Your task to perform on an android device: turn on javascript in the chrome app Image 0: 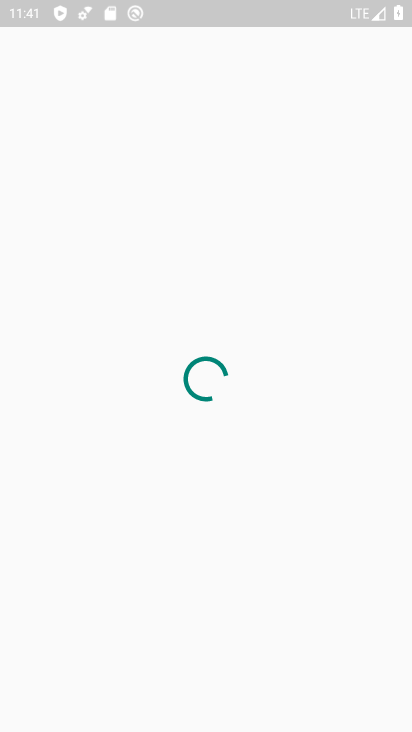
Step 0: press home button
Your task to perform on an android device: turn on javascript in the chrome app Image 1: 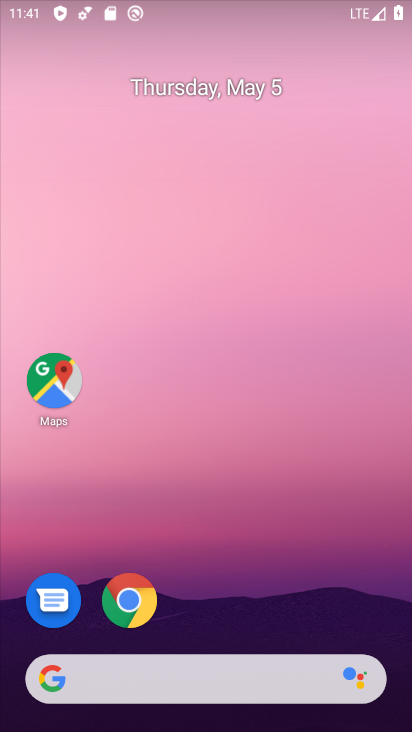
Step 1: drag from (371, 636) to (329, 66)
Your task to perform on an android device: turn on javascript in the chrome app Image 2: 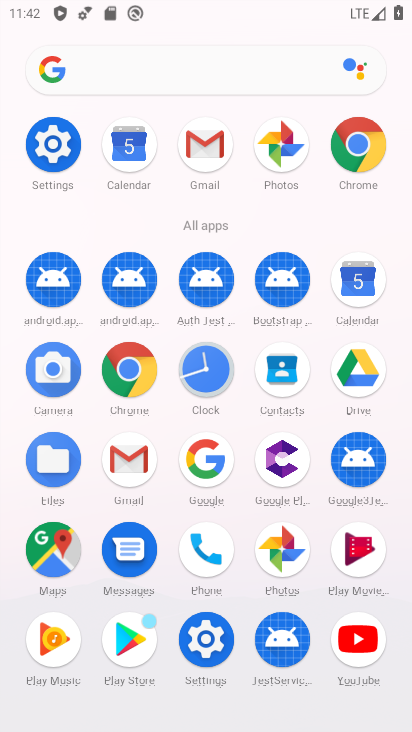
Step 2: click (348, 170)
Your task to perform on an android device: turn on javascript in the chrome app Image 3: 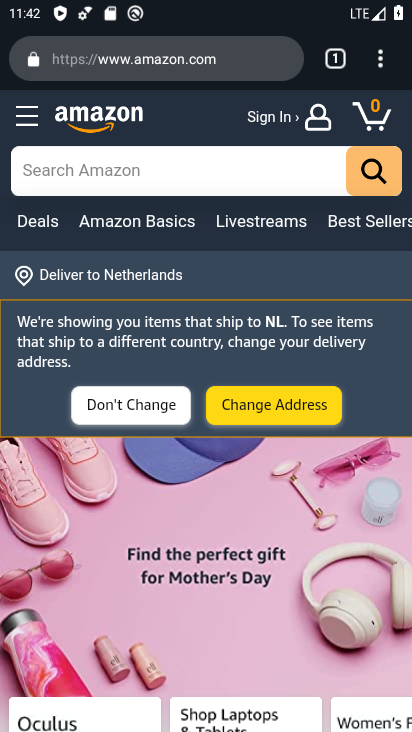
Step 3: press back button
Your task to perform on an android device: turn on javascript in the chrome app Image 4: 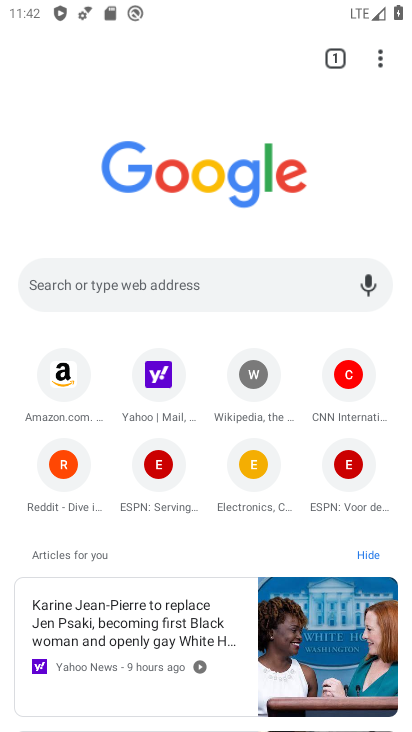
Step 4: click (382, 52)
Your task to perform on an android device: turn on javascript in the chrome app Image 5: 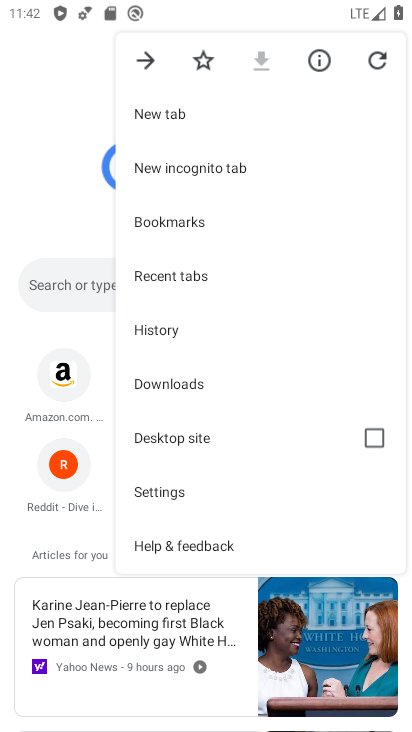
Step 5: click (220, 503)
Your task to perform on an android device: turn on javascript in the chrome app Image 6: 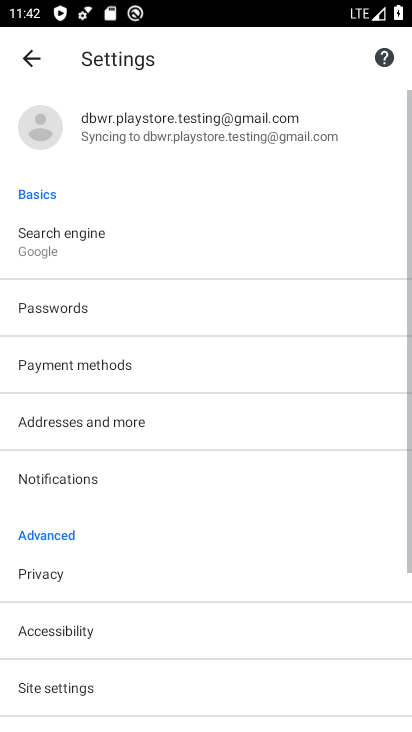
Step 6: drag from (125, 658) to (163, 298)
Your task to perform on an android device: turn on javascript in the chrome app Image 7: 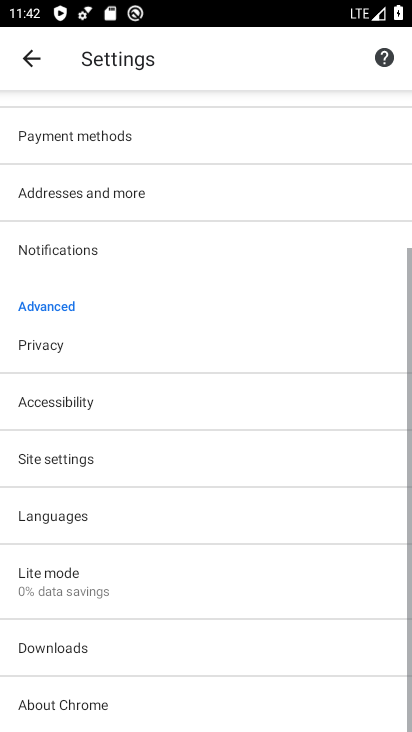
Step 7: click (79, 458)
Your task to perform on an android device: turn on javascript in the chrome app Image 8: 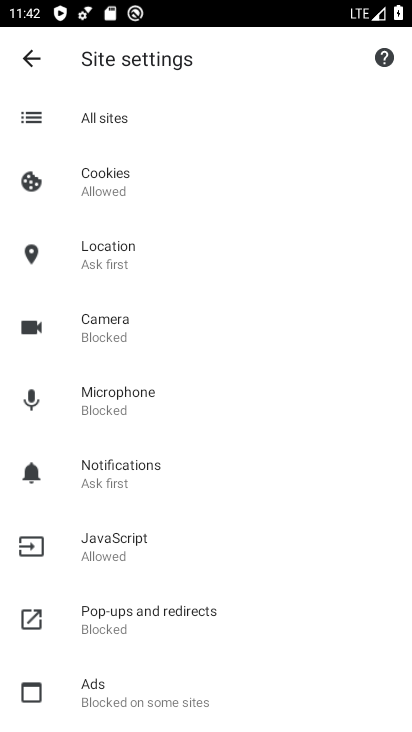
Step 8: click (170, 549)
Your task to perform on an android device: turn on javascript in the chrome app Image 9: 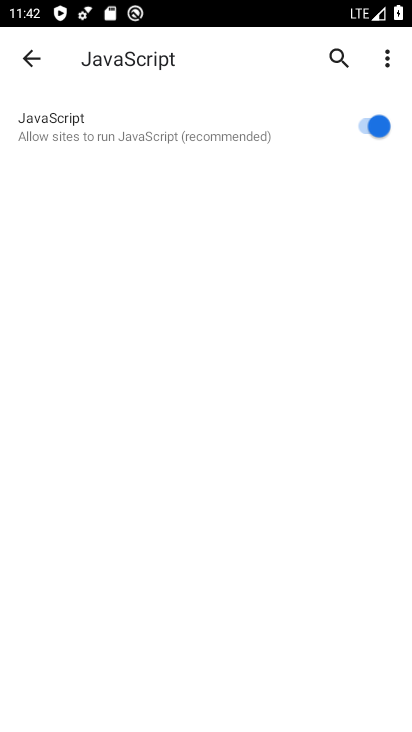
Step 9: task complete